Your task to perform on an android device: delete location history Image 0: 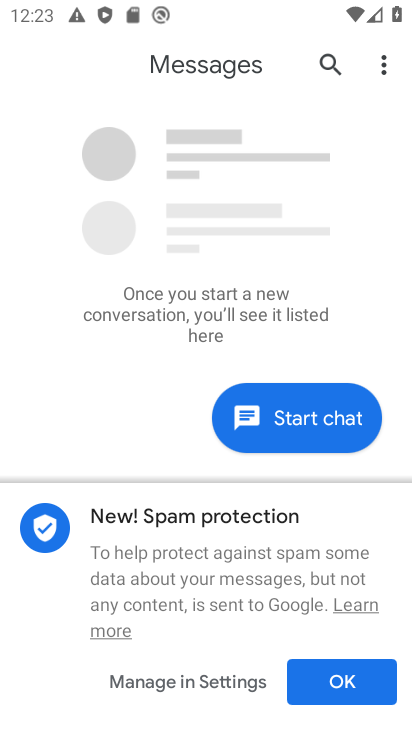
Step 0: press home button
Your task to perform on an android device: delete location history Image 1: 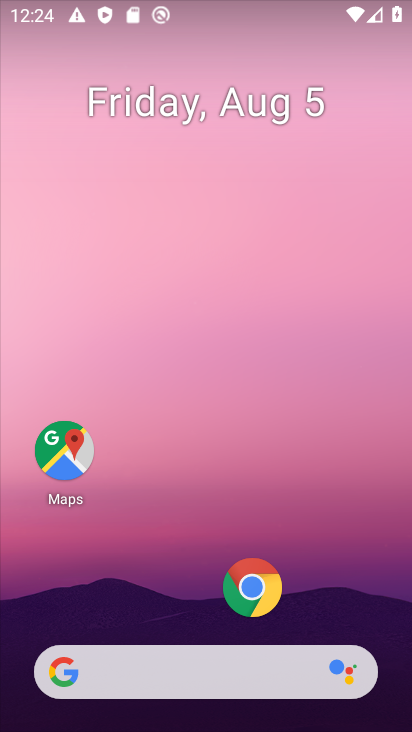
Step 1: click (53, 454)
Your task to perform on an android device: delete location history Image 2: 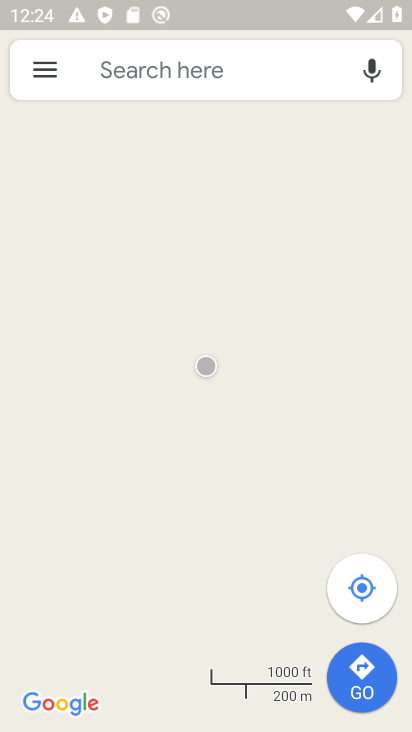
Step 2: click (57, 67)
Your task to perform on an android device: delete location history Image 3: 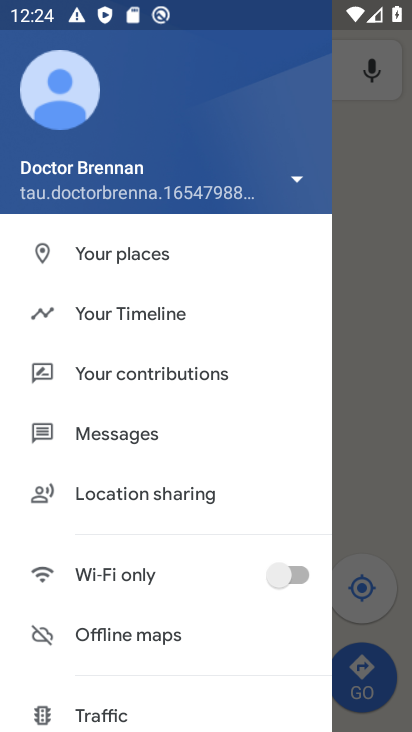
Step 3: click (154, 309)
Your task to perform on an android device: delete location history Image 4: 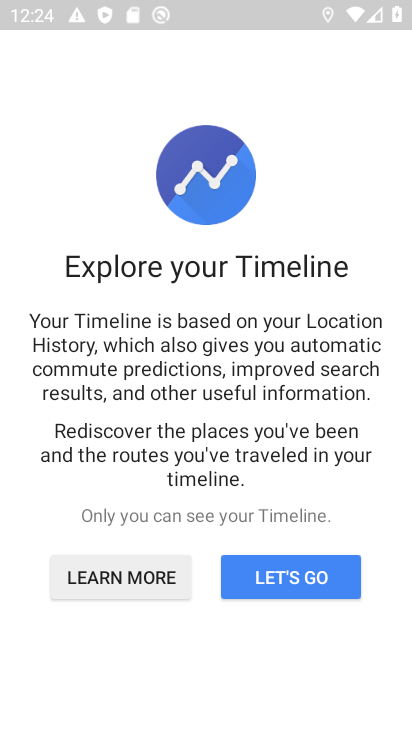
Step 4: click (299, 575)
Your task to perform on an android device: delete location history Image 5: 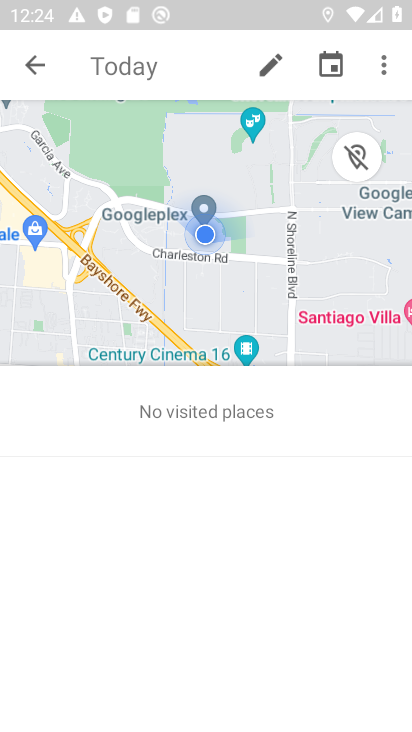
Step 5: click (385, 60)
Your task to perform on an android device: delete location history Image 6: 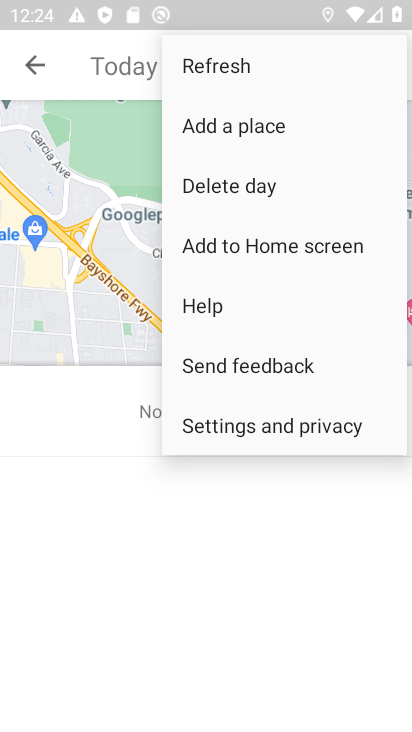
Step 6: click (267, 431)
Your task to perform on an android device: delete location history Image 7: 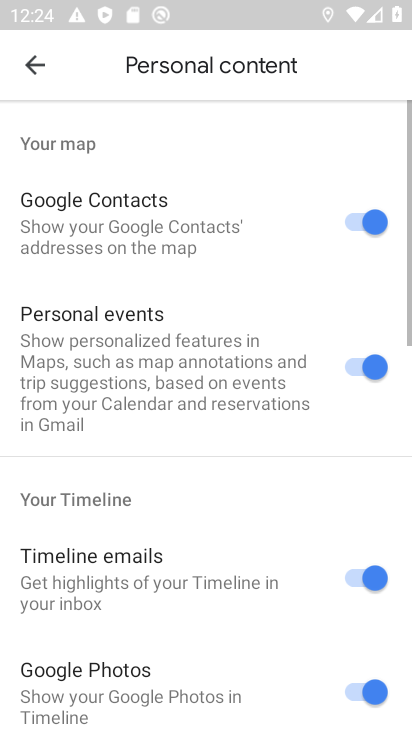
Step 7: drag from (208, 663) to (361, 25)
Your task to perform on an android device: delete location history Image 8: 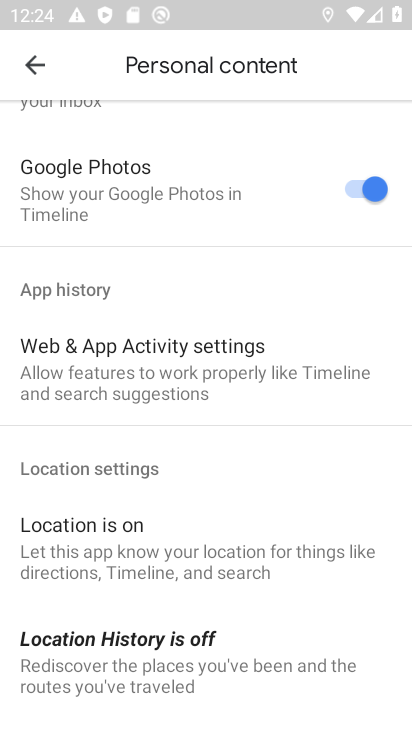
Step 8: drag from (274, 618) to (356, 26)
Your task to perform on an android device: delete location history Image 9: 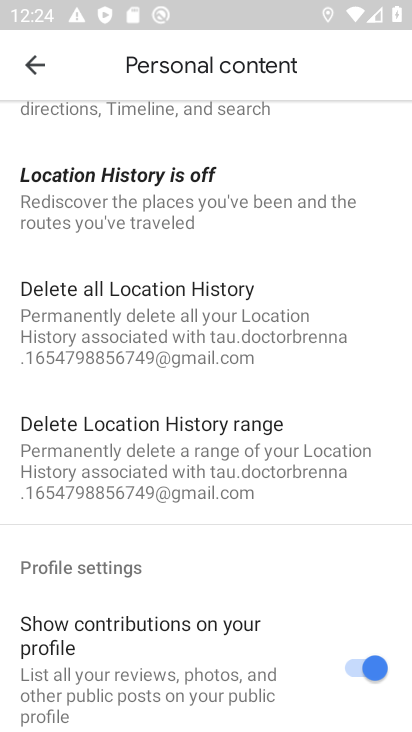
Step 9: click (119, 309)
Your task to perform on an android device: delete location history Image 10: 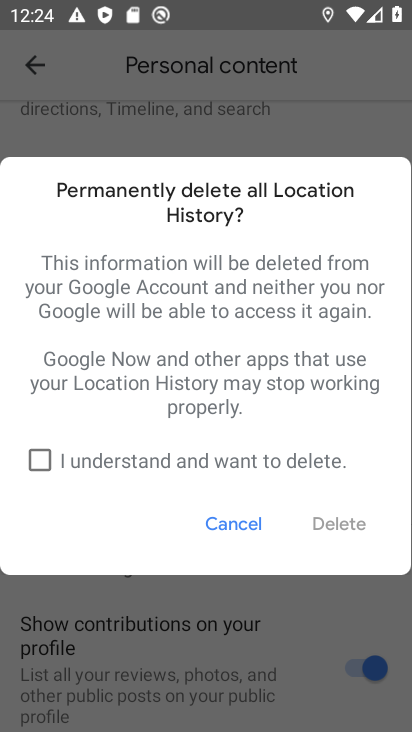
Step 10: click (54, 457)
Your task to perform on an android device: delete location history Image 11: 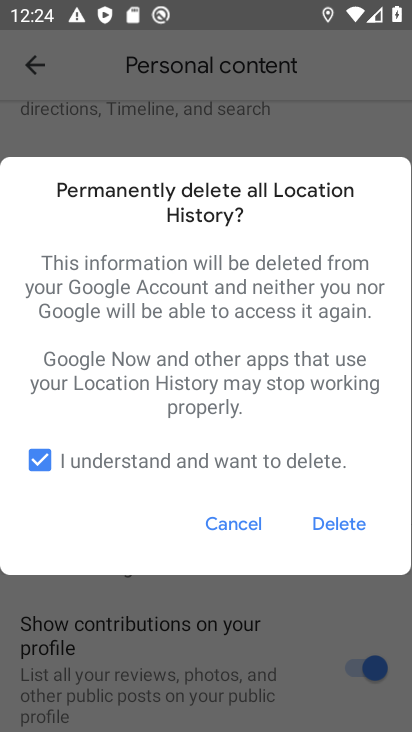
Step 11: click (329, 518)
Your task to perform on an android device: delete location history Image 12: 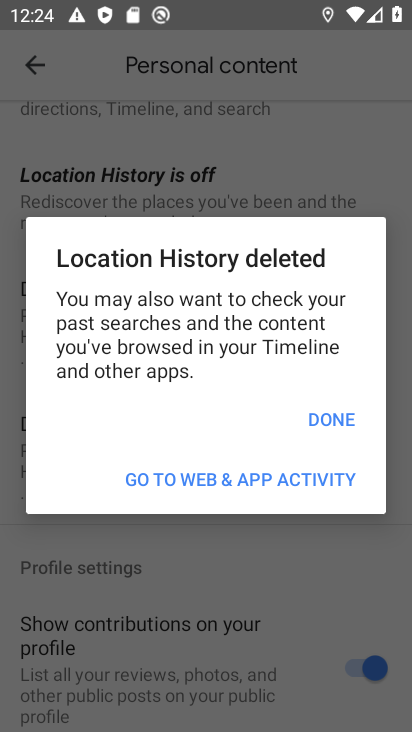
Step 12: click (331, 426)
Your task to perform on an android device: delete location history Image 13: 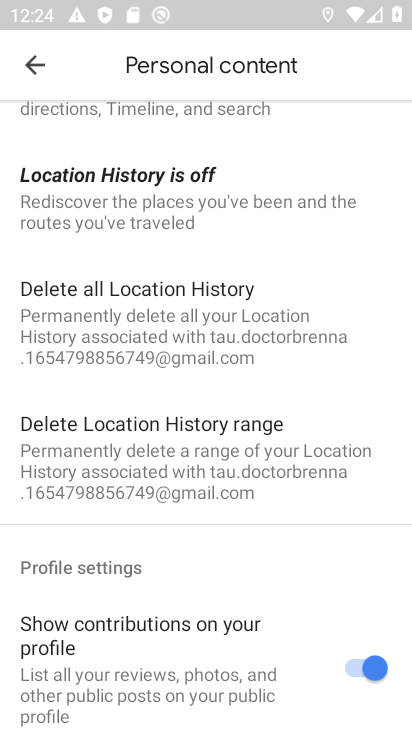
Step 13: task complete